Your task to perform on an android device: Check the weather Image 0: 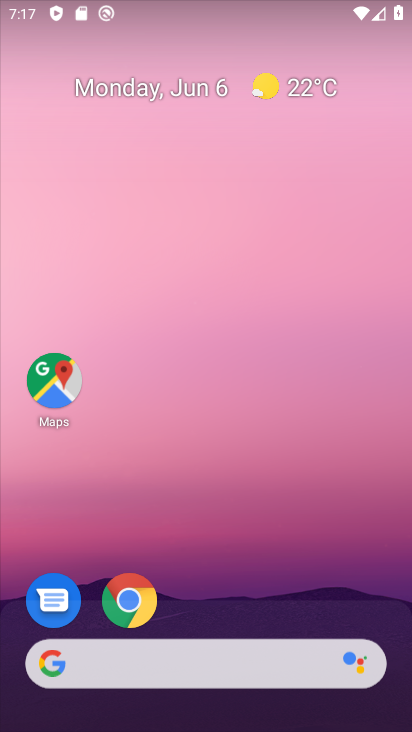
Step 0: drag from (289, 561) to (242, 43)
Your task to perform on an android device: Check the weather Image 1: 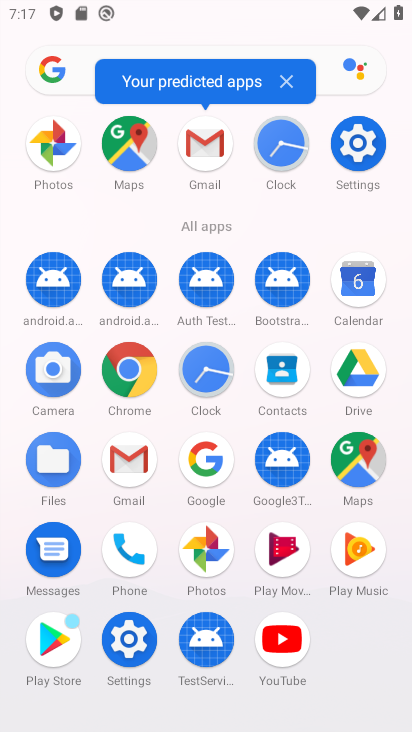
Step 1: click (203, 458)
Your task to perform on an android device: Check the weather Image 2: 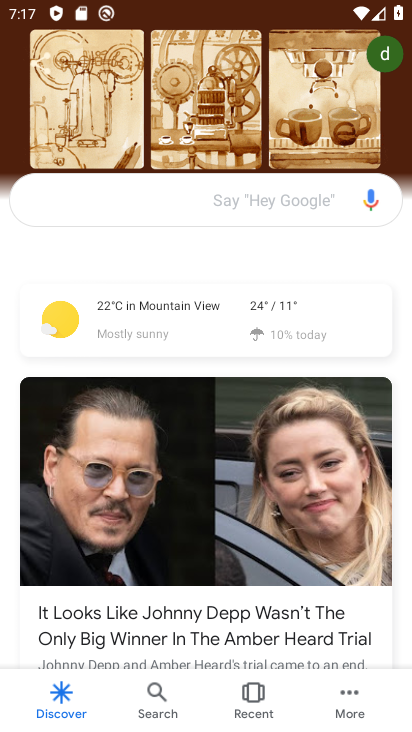
Step 2: click (200, 322)
Your task to perform on an android device: Check the weather Image 3: 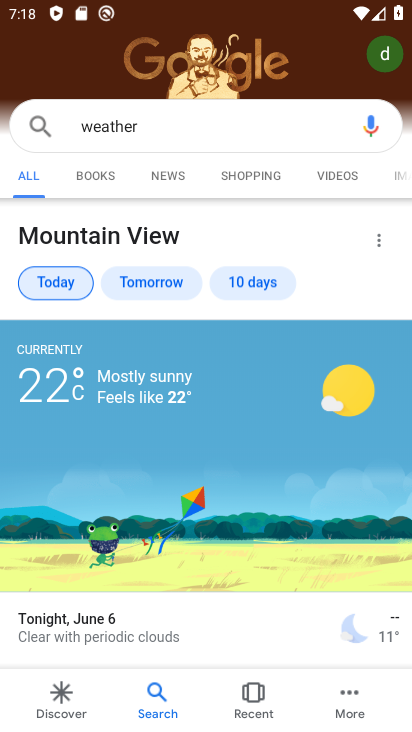
Step 3: task complete